Your task to perform on an android device: turn notification dots on Image 0: 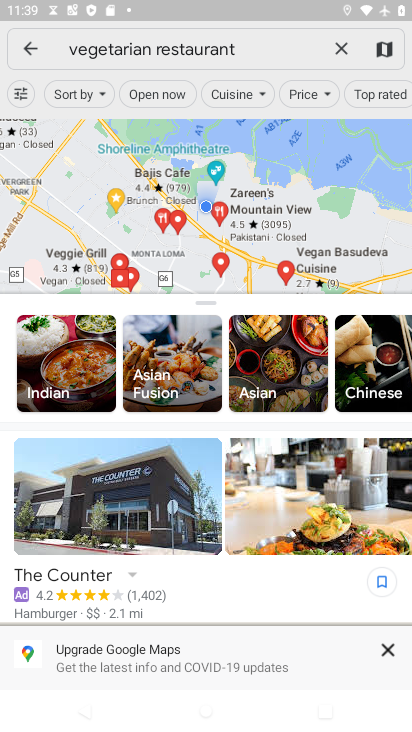
Step 0: click (35, 41)
Your task to perform on an android device: turn notification dots on Image 1: 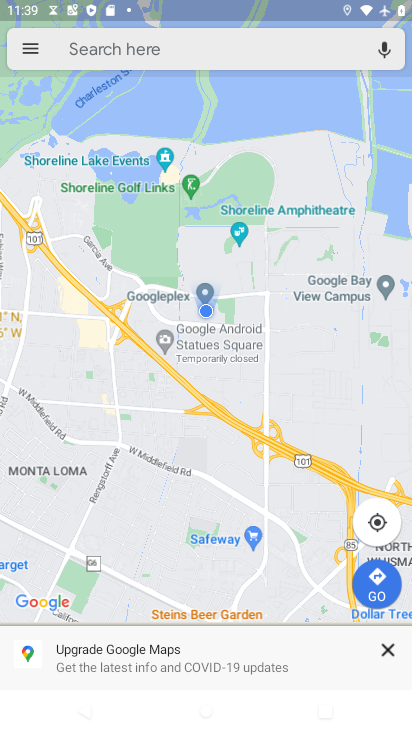
Step 1: press home button
Your task to perform on an android device: turn notification dots on Image 2: 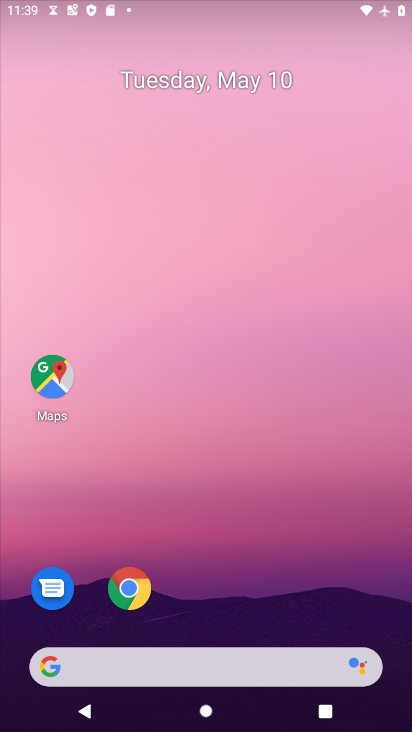
Step 2: drag from (302, 569) to (158, 41)
Your task to perform on an android device: turn notification dots on Image 3: 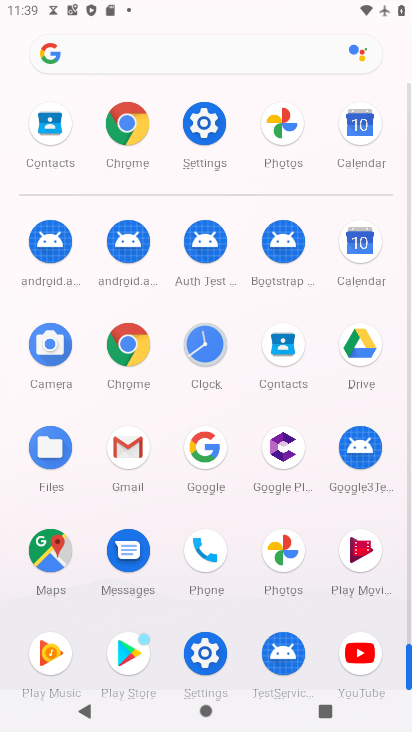
Step 3: click (205, 120)
Your task to perform on an android device: turn notification dots on Image 4: 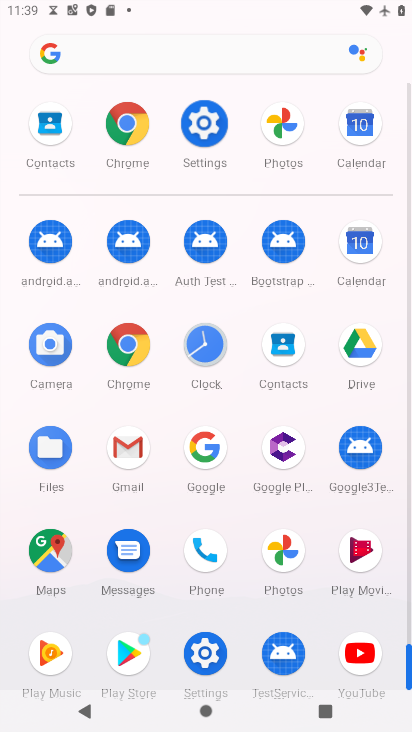
Step 4: click (205, 119)
Your task to perform on an android device: turn notification dots on Image 5: 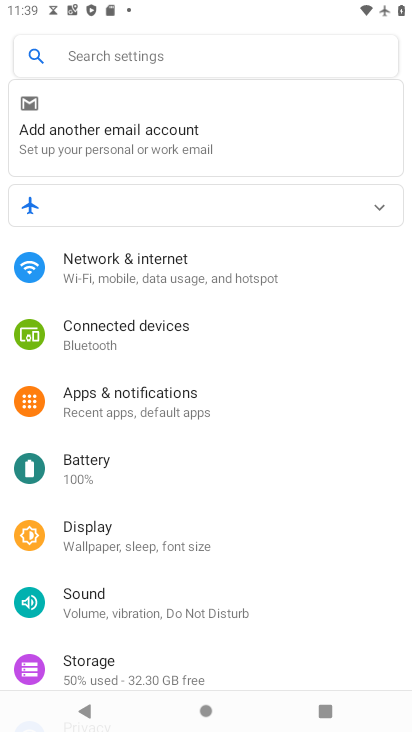
Step 5: click (109, 403)
Your task to perform on an android device: turn notification dots on Image 6: 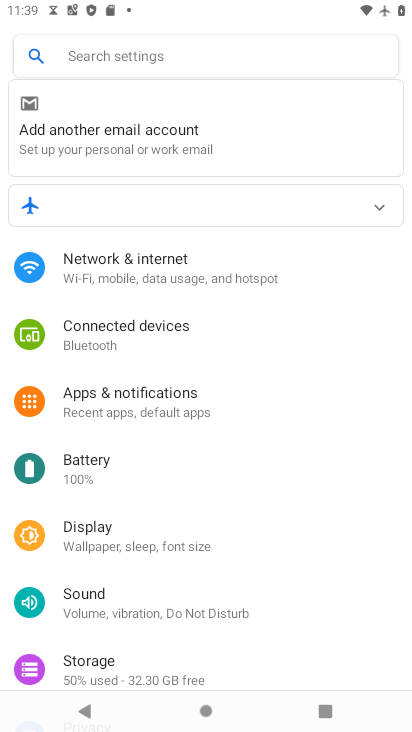
Step 6: click (109, 403)
Your task to perform on an android device: turn notification dots on Image 7: 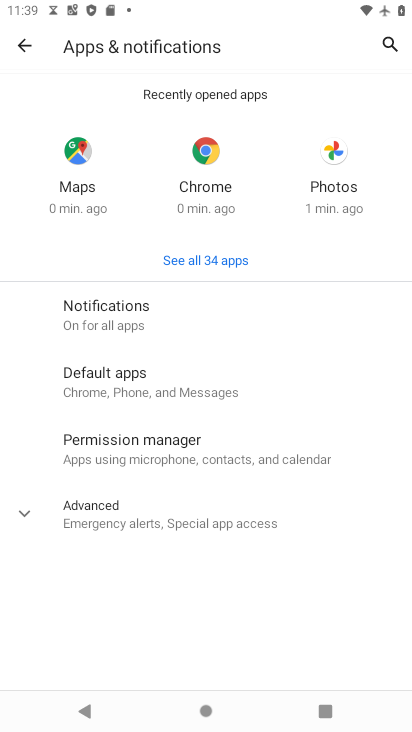
Step 7: click (107, 306)
Your task to perform on an android device: turn notification dots on Image 8: 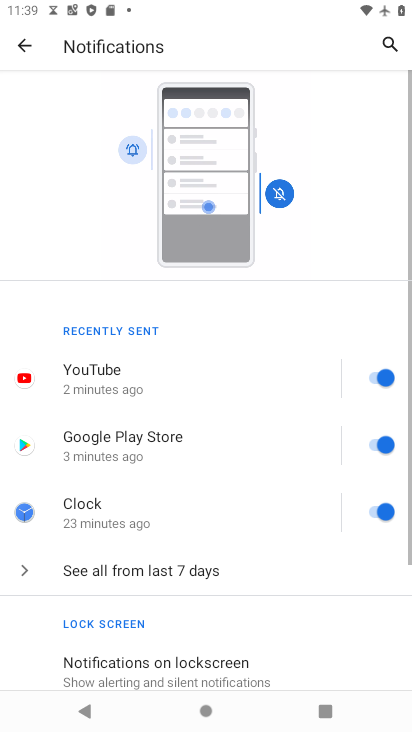
Step 8: drag from (100, 413) to (98, 225)
Your task to perform on an android device: turn notification dots on Image 9: 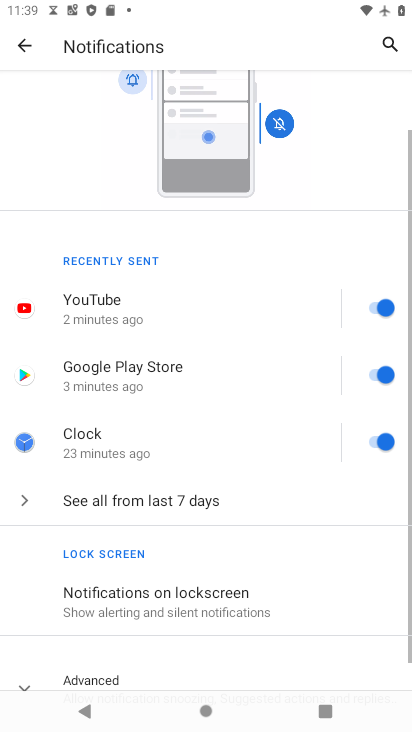
Step 9: drag from (163, 527) to (205, 136)
Your task to perform on an android device: turn notification dots on Image 10: 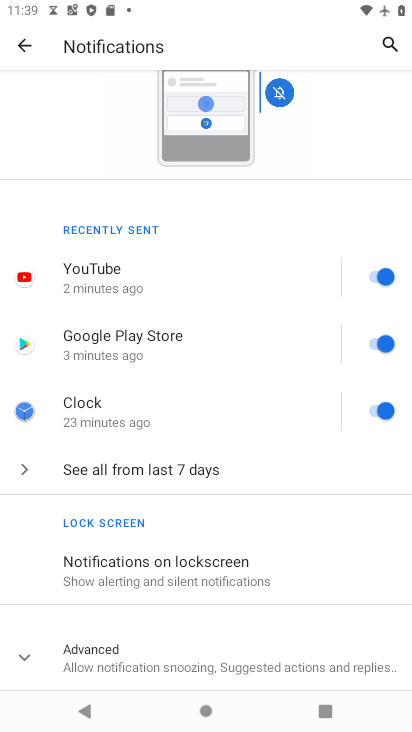
Step 10: drag from (237, 516) to (266, 236)
Your task to perform on an android device: turn notification dots on Image 11: 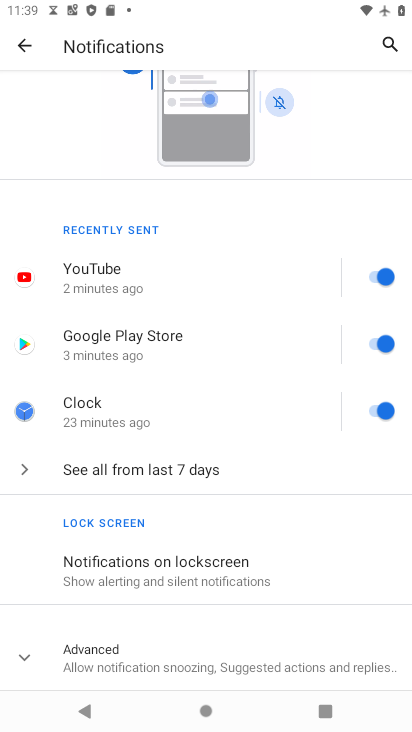
Step 11: click (104, 661)
Your task to perform on an android device: turn notification dots on Image 12: 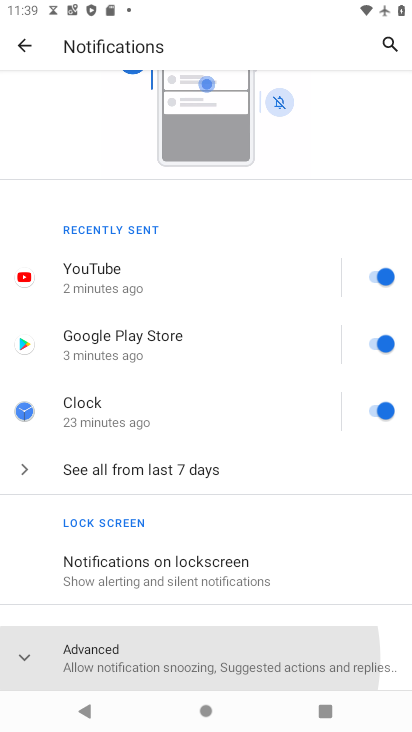
Step 12: click (103, 660)
Your task to perform on an android device: turn notification dots on Image 13: 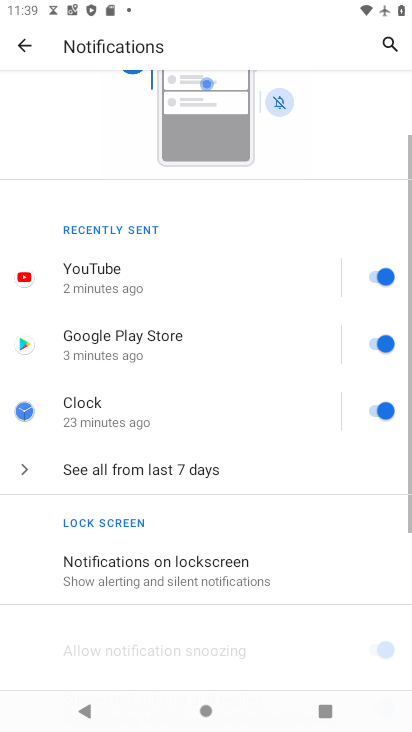
Step 13: click (103, 659)
Your task to perform on an android device: turn notification dots on Image 14: 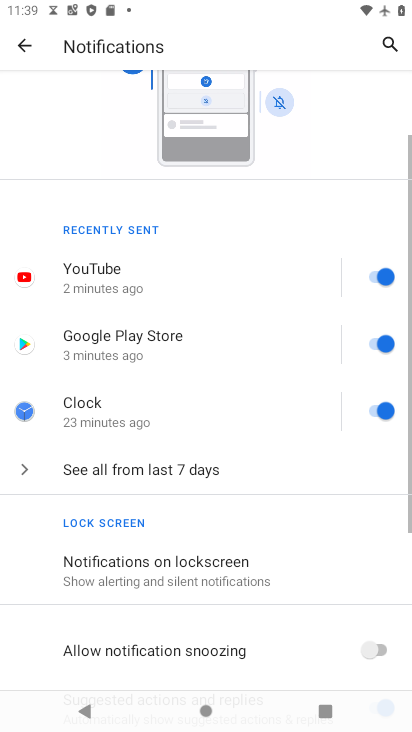
Step 14: drag from (289, 475) to (258, 250)
Your task to perform on an android device: turn notification dots on Image 15: 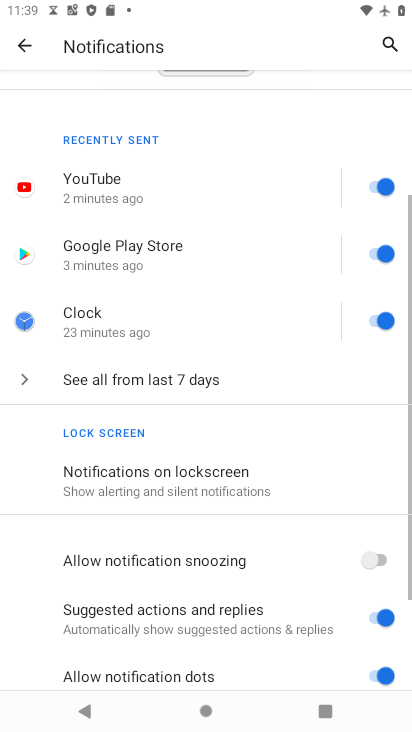
Step 15: drag from (273, 333) to (263, 111)
Your task to perform on an android device: turn notification dots on Image 16: 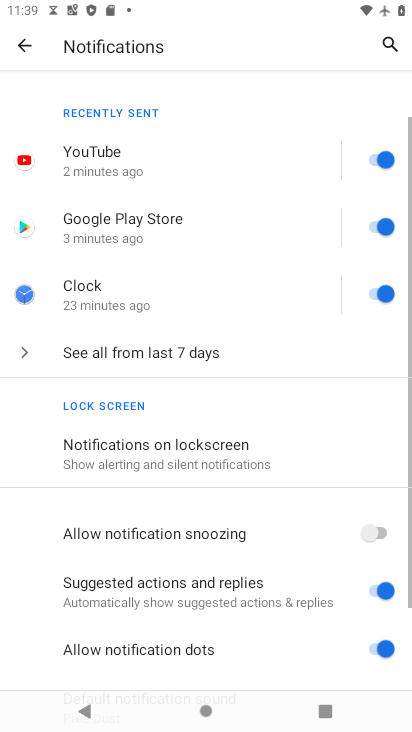
Step 16: drag from (215, 405) to (229, 161)
Your task to perform on an android device: turn notification dots on Image 17: 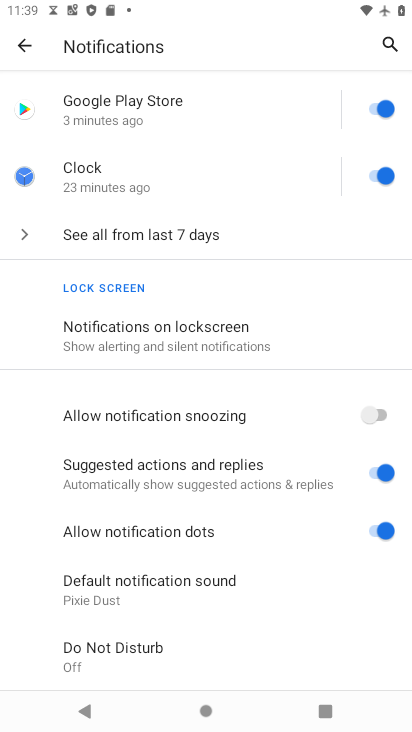
Step 17: click (395, 531)
Your task to perform on an android device: turn notification dots on Image 18: 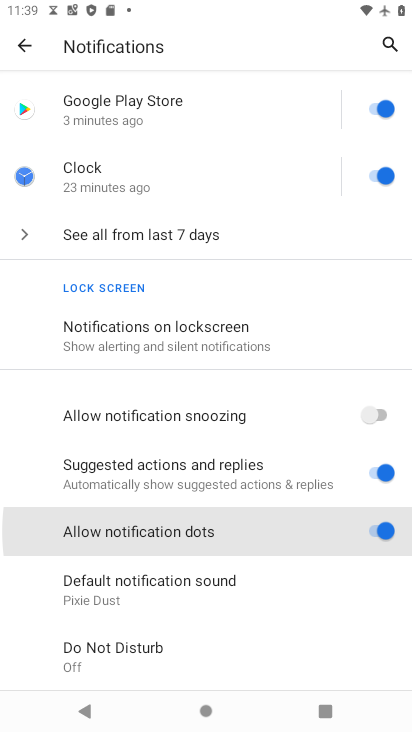
Step 18: click (395, 531)
Your task to perform on an android device: turn notification dots on Image 19: 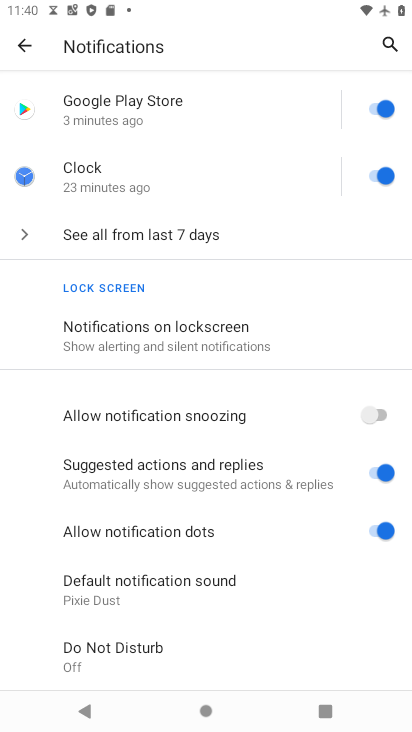
Step 19: click (381, 528)
Your task to perform on an android device: turn notification dots on Image 20: 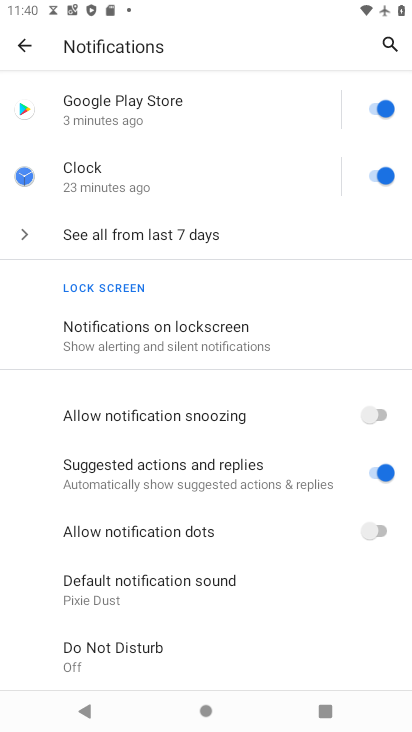
Step 20: click (370, 535)
Your task to perform on an android device: turn notification dots on Image 21: 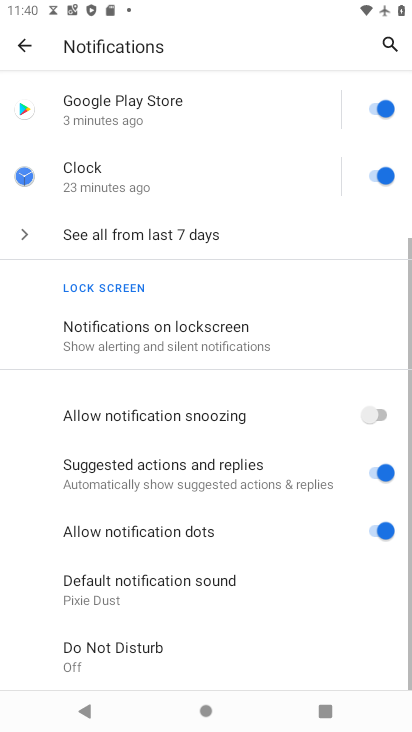
Step 21: task complete